Your task to perform on an android device: turn off priority inbox in the gmail app Image 0: 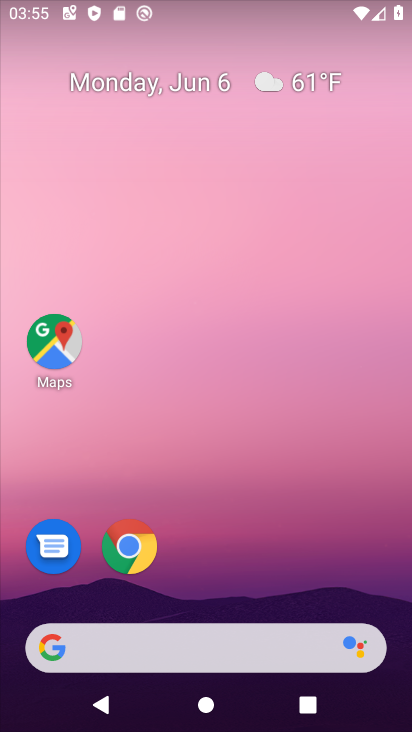
Step 0: press home button
Your task to perform on an android device: turn off priority inbox in the gmail app Image 1: 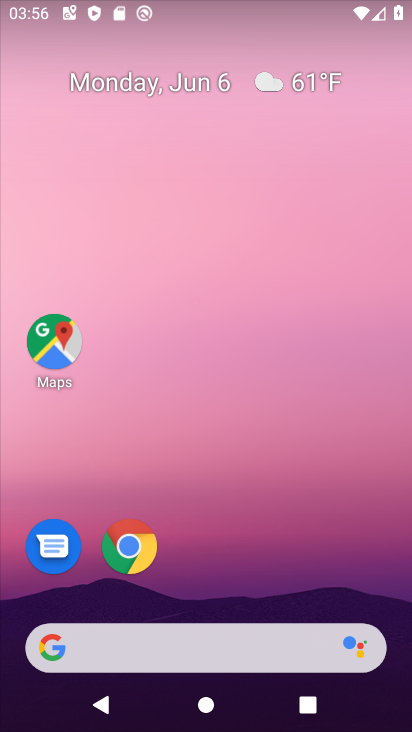
Step 1: drag from (215, 608) to (233, 119)
Your task to perform on an android device: turn off priority inbox in the gmail app Image 2: 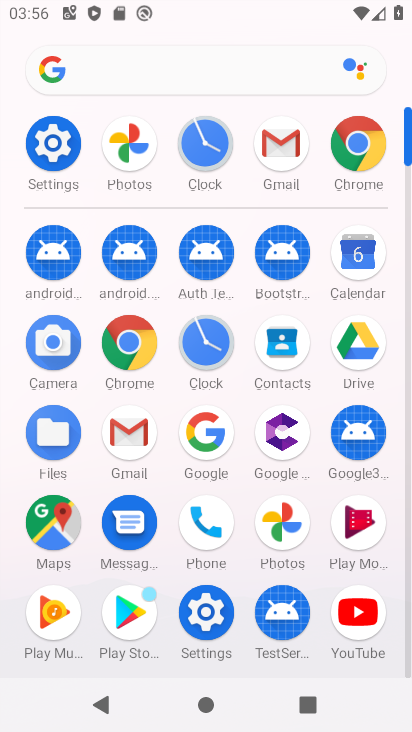
Step 2: click (287, 155)
Your task to perform on an android device: turn off priority inbox in the gmail app Image 3: 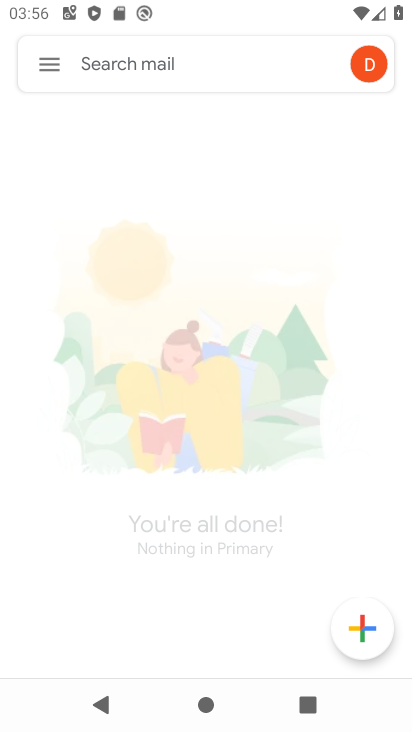
Step 3: click (47, 54)
Your task to perform on an android device: turn off priority inbox in the gmail app Image 4: 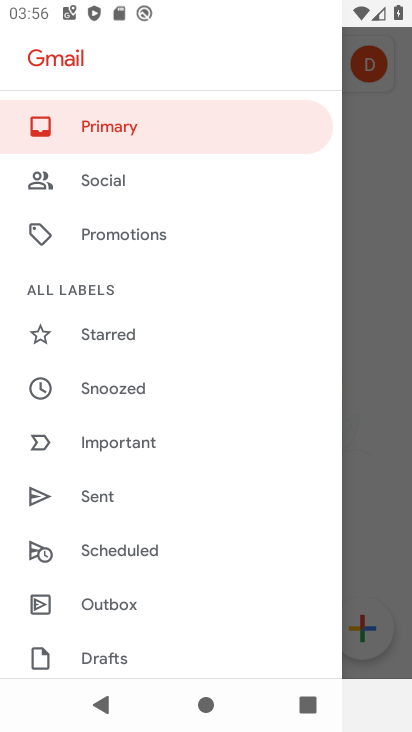
Step 4: drag from (235, 597) to (220, 241)
Your task to perform on an android device: turn off priority inbox in the gmail app Image 5: 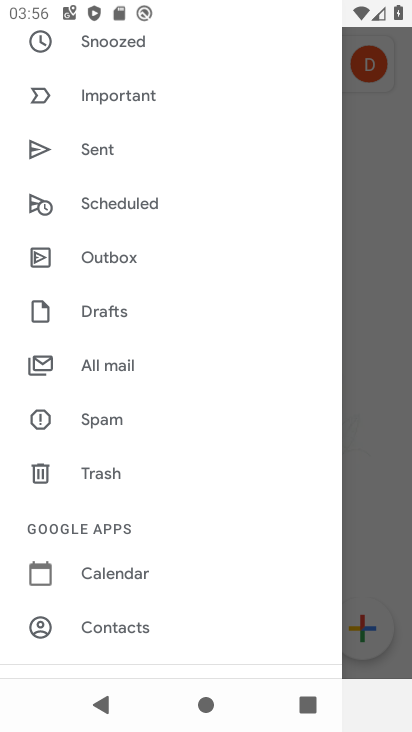
Step 5: drag from (275, 544) to (278, 265)
Your task to perform on an android device: turn off priority inbox in the gmail app Image 6: 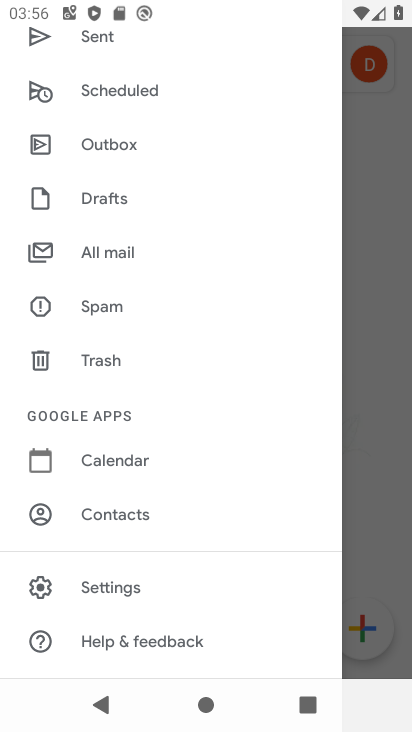
Step 6: click (111, 582)
Your task to perform on an android device: turn off priority inbox in the gmail app Image 7: 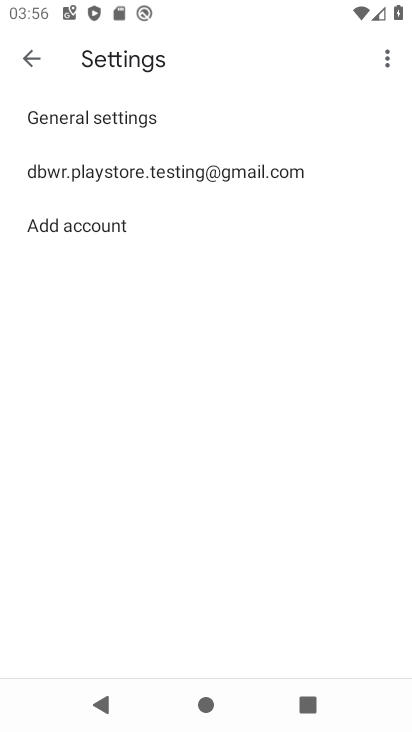
Step 7: click (152, 171)
Your task to perform on an android device: turn off priority inbox in the gmail app Image 8: 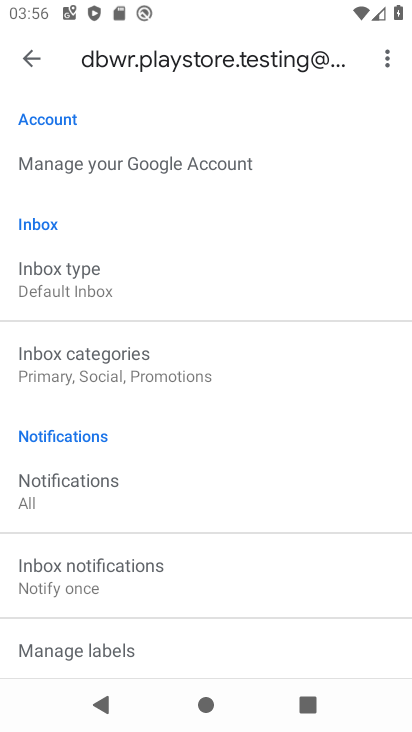
Step 8: click (67, 290)
Your task to perform on an android device: turn off priority inbox in the gmail app Image 9: 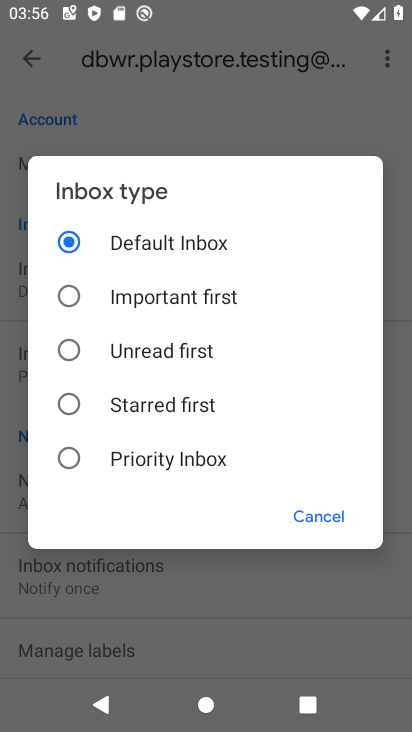
Step 9: task complete